Your task to perform on an android device: turn on javascript in the chrome app Image 0: 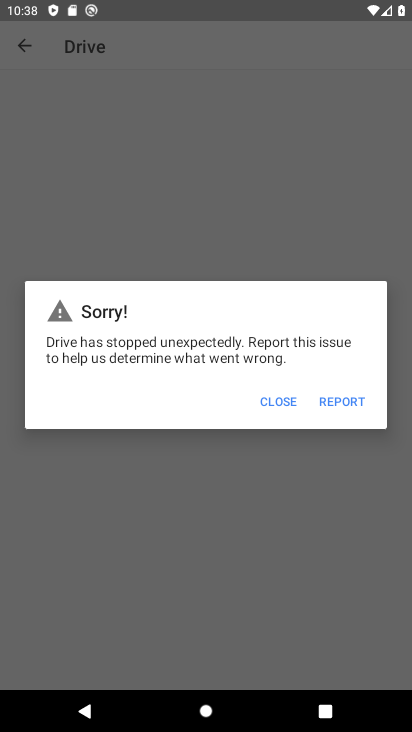
Step 0: press home button
Your task to perform on an android device: turn on javascript in the chrome app Image 1: 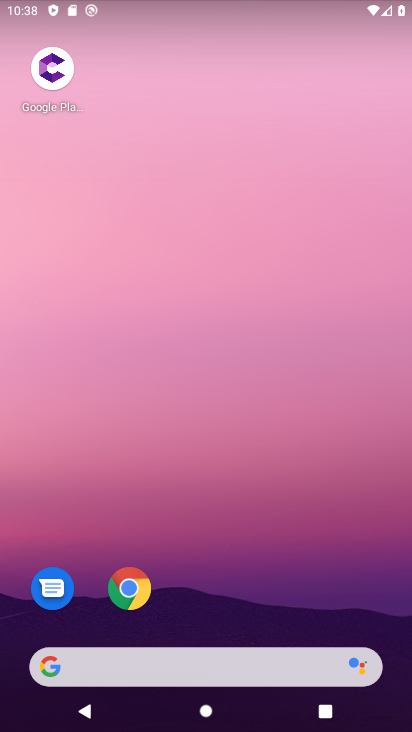
Step 1: click (134, 574)
Your task to perform on an android device: turn on javascript in the chrome app Image 2: 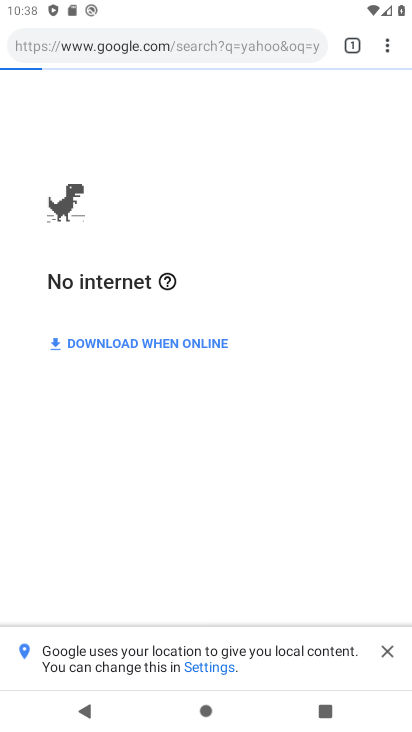
Step 2: click (394, 45)
Your task to perform on an android device: turn on javascript in the chrome app Image 3: 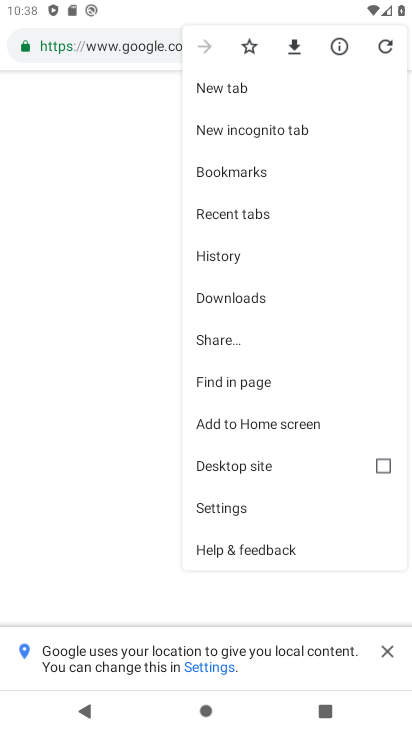
Step 3: click (243, 511)
Your task to perform on an android device: turn on javascript in the chrome app Image 4: 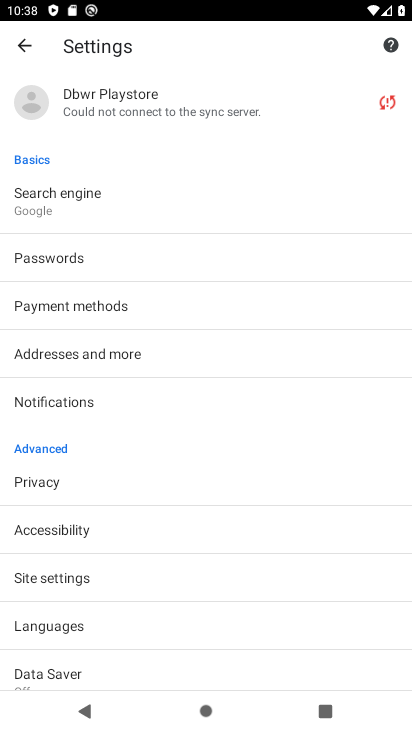
Step 4: click (187, 581)
Your task to perform on an android device: turn on javascript in the chrome app Image 5: 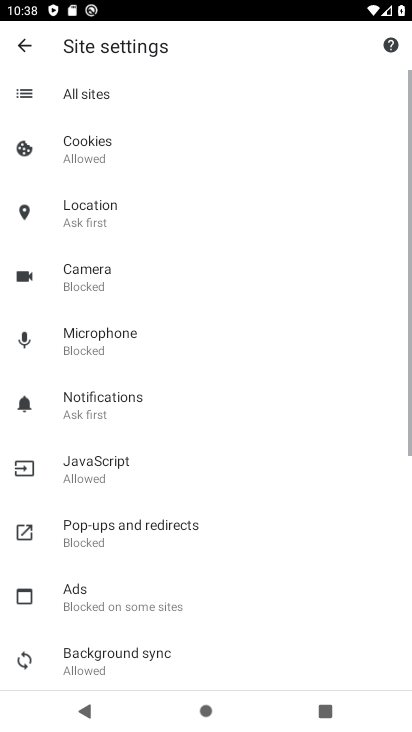
Step 5: drag from (187, 580) to (206, 385)
Your task to perform on an android device: turn on javascript in the chrome app Image 6: 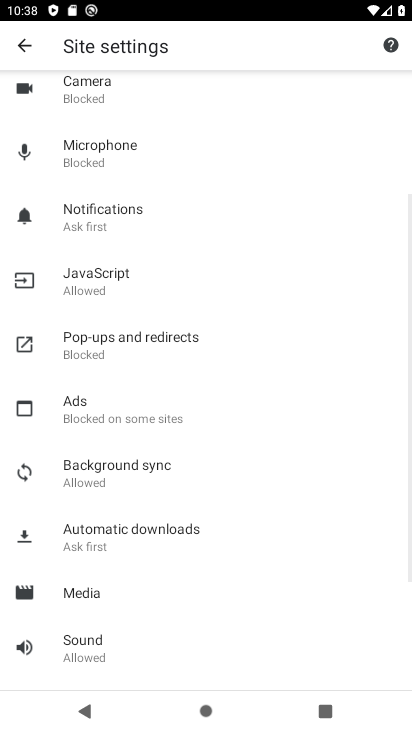
Step 6: click (124, 297)
Your task to perform on an android device: turn on javascript in the chrome app Image 7: 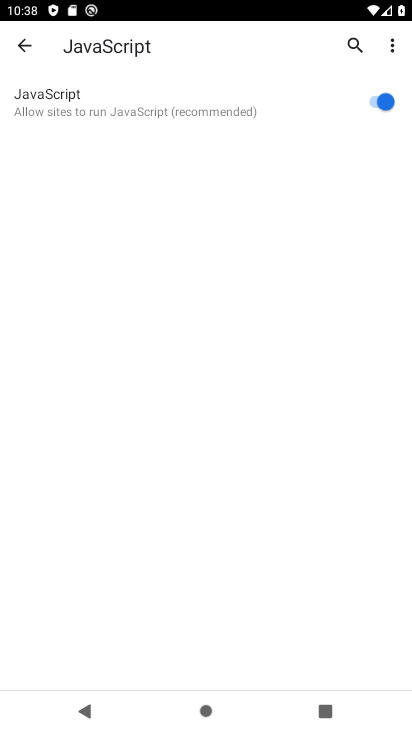
Step 7: task complete